Your task to perform on an android device: turn on javascript in the chrome app Image 0: 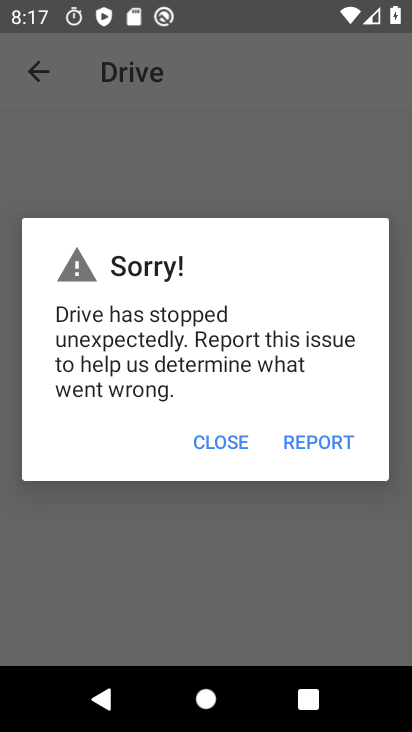
Step 0: press home button
Your task to perform on an android device: turn on javascript in the chrome app Image 1: 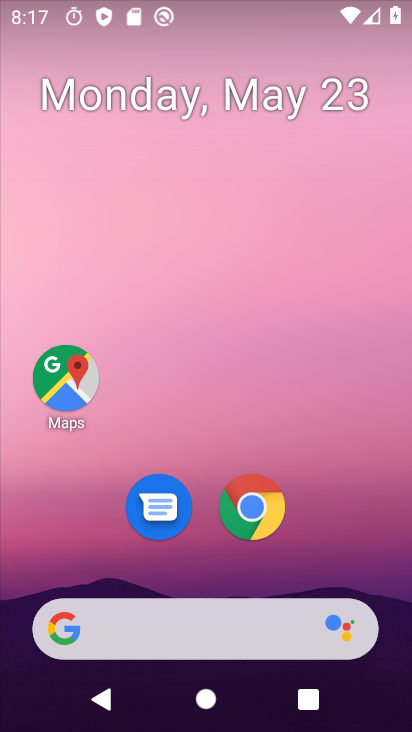
Step 1: drag from (317, 465) to (389, 4)
Your task to perform on an android device: turn on javascript in the chrome app Image 2: 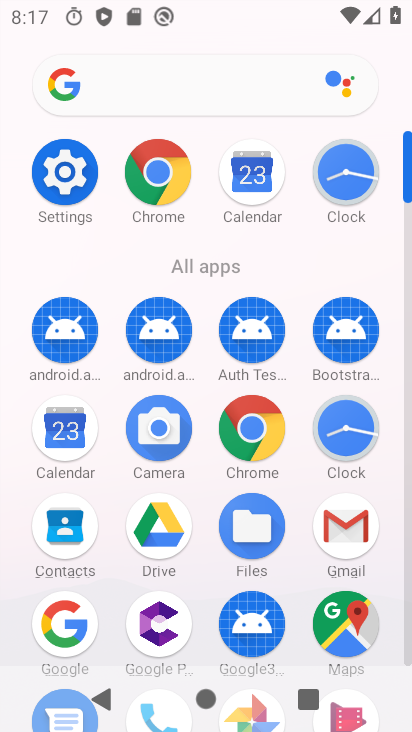
Step 2: click (170, 184)
Your task to perform on an android device: turn on javascript in the chrome app Image 3: 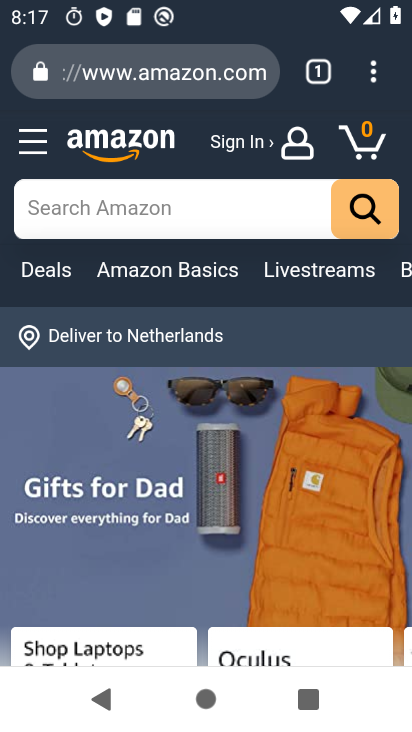
Step 3: drag from (377, 54) to (102, 508)
Your task to perform on an android device: turn on javascript in the chrome app Image 4: 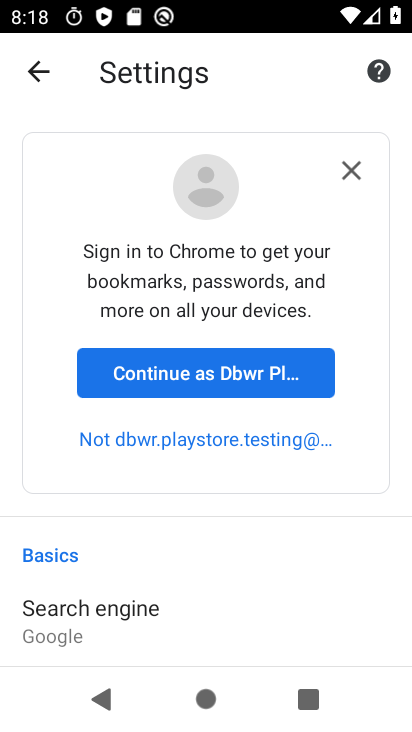
Step 4: drag from (153, 593) to (113, 165)
Your task to perform on an android device: turn on javascript in the chrome app Image 5: 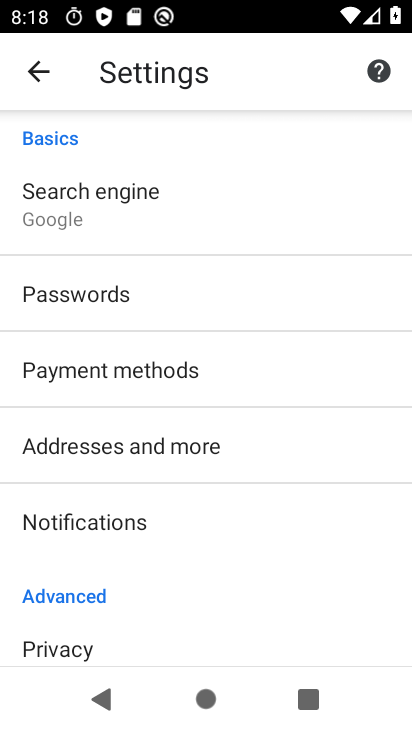
Step 5: drag from (170, 582) to (164, 144)
Your task to perform on an android device: turn on javascript in the chrome app Image 6: 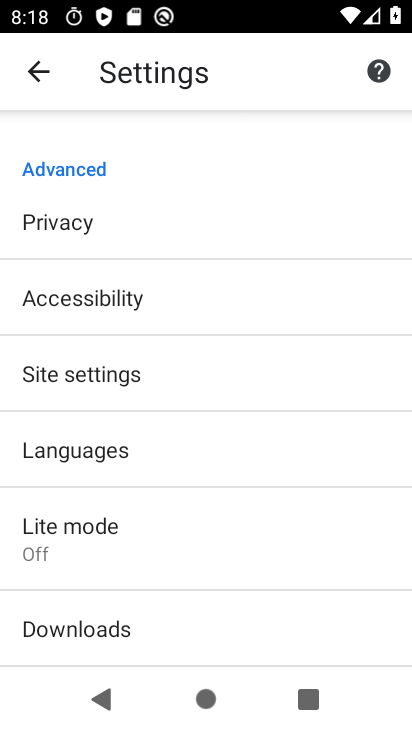
Step 6: click (83, 382)
Your task to perform on an android device: turn on javascript in the chrome app Image 7: 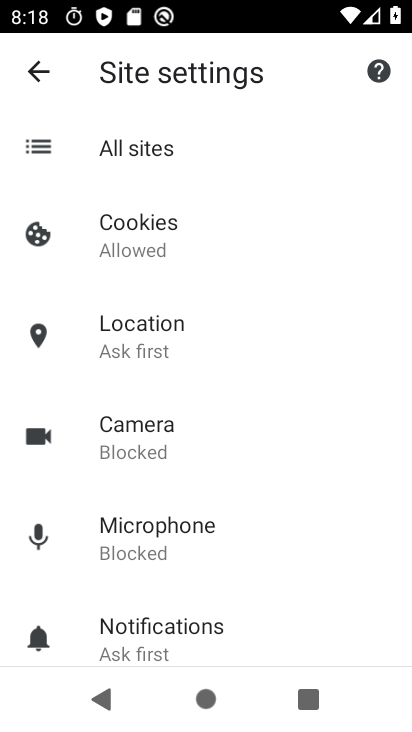
Step 7: drag from (239, 630) to (201, 261)
Your task to perform on an android device: turn on javascript in the chrome app Image 8: 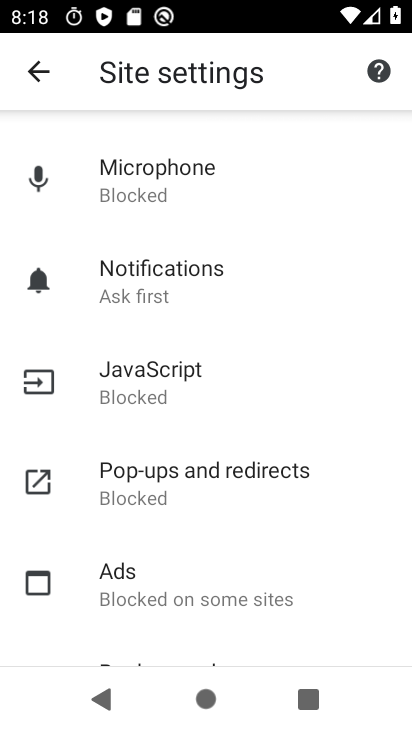
Step 8: click (133, 354)
Your task to perform on an android device: turn on javascript in the chrome app Image 9: 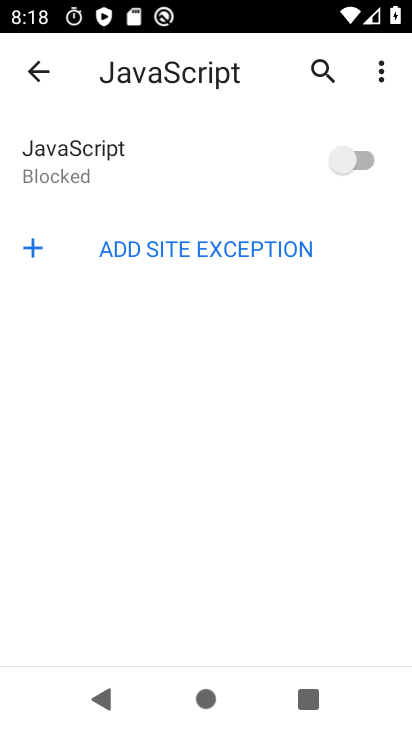
Step 9: click (348, 159)
Your task to perform on an android device: turn on javascript in the chrome app Image 10: 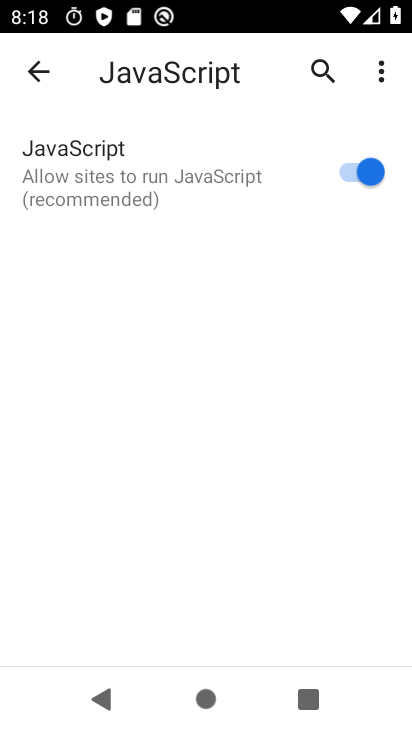
Step 10: task complete